Your task to perform on an android device: Open sound settings Image 0: 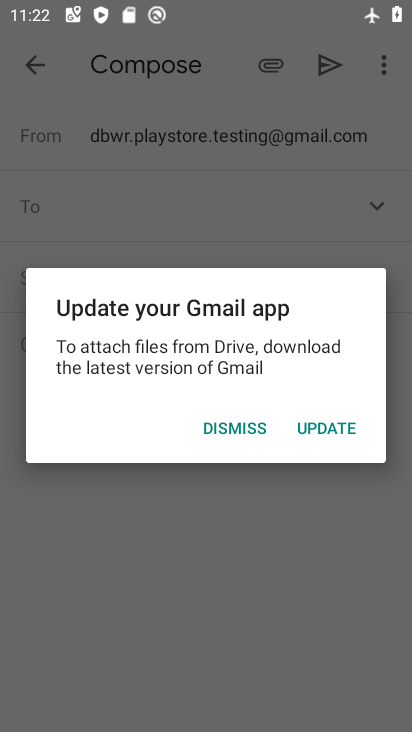
Step 0: click (259, 429)
Your task to perform on an android device: Open sound settings Image 1: 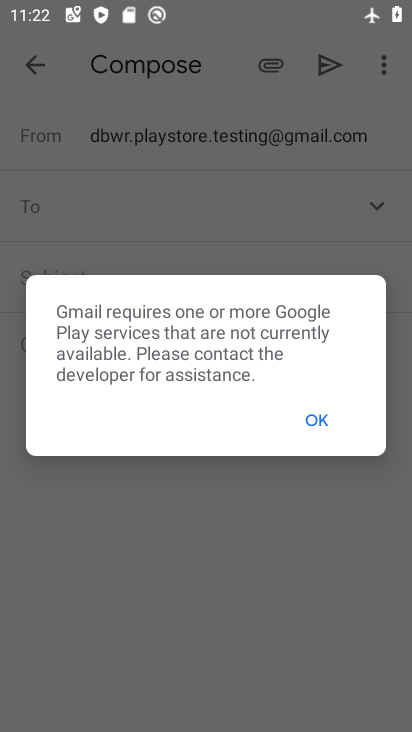
Step 1: click (330, 414)
Your task to perform on an android device: Open sound settings Image 2: 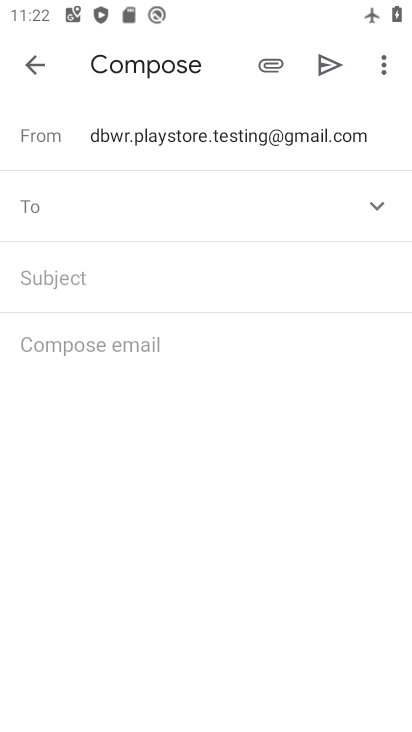
Step 2: press home button
Your task to perform on an android device: Open sound settings Image 3: 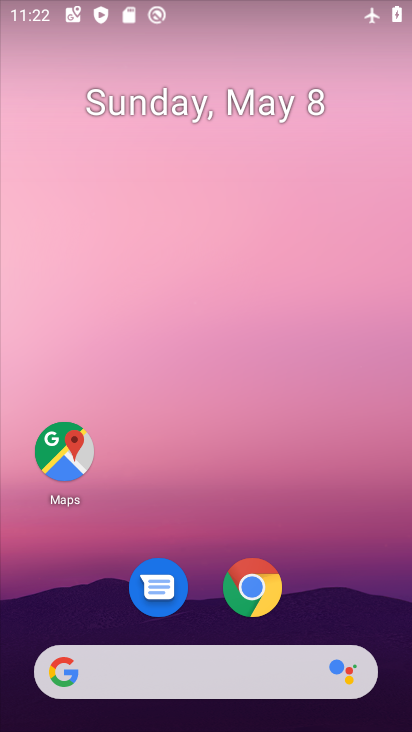
Step 3: drag from (326, 607) to (58, 0)
Your task to perform on an android device: Open sound settings Image 4: 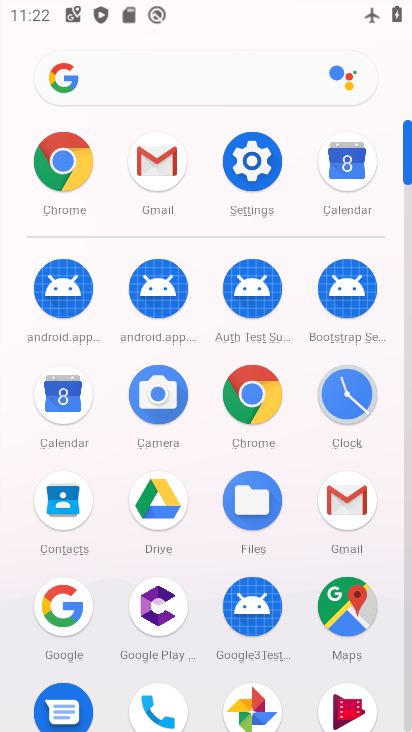
Step 4: click (258, 153)
Your task to perform on an android device: Open sound settings Image 5: 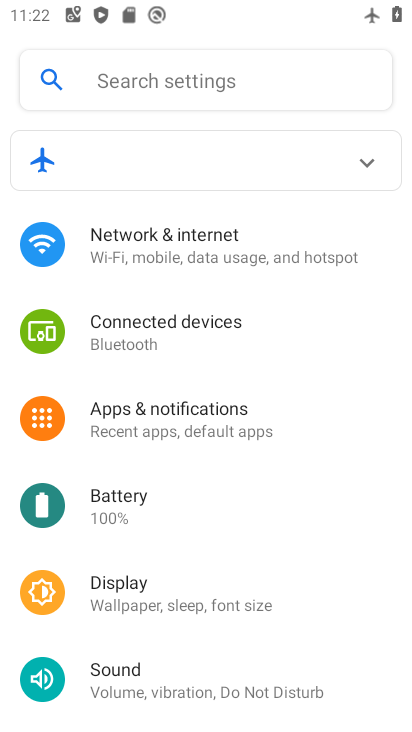
Step 5: drag from (177, 602) to (138, 149)
Your task to perform on an android device: Open sound settings Image 6: 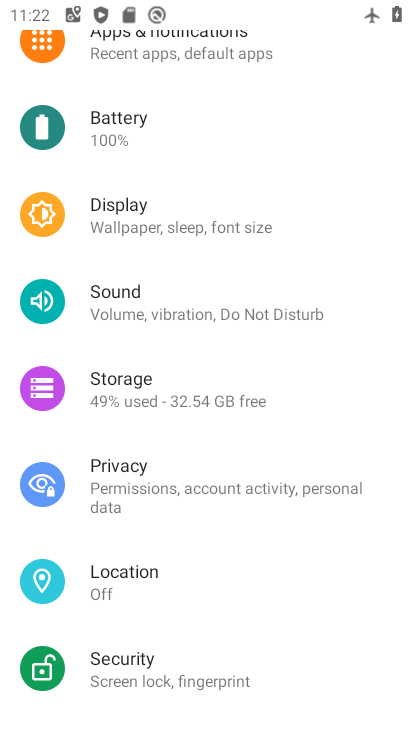
Step 6: click (106, 303)
Your task to perform on an android device: Open sound settings Image 7: 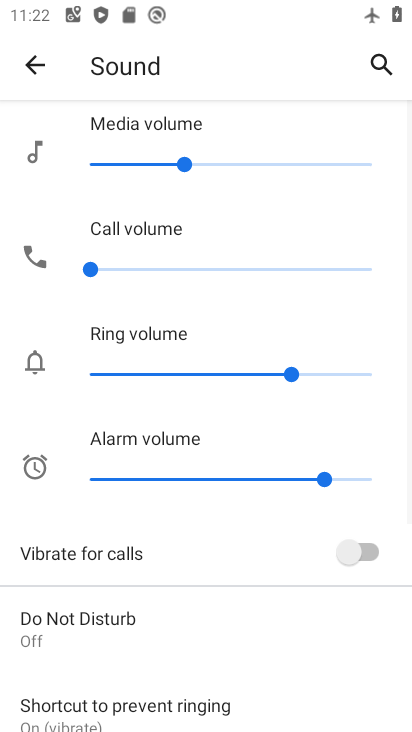
Step 7: task complete